Your task to perform on an android device: turn off improve location accuracy Image 0: 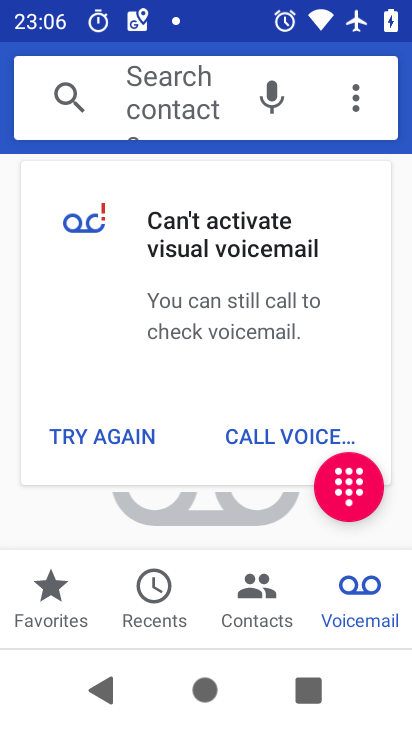
Step 0: press home button
Your task to perform on an android device: turn off improve location accuracy Image 1: 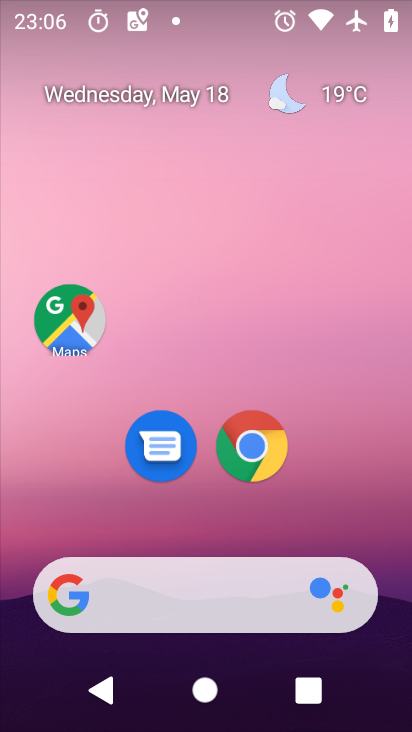
Step 1: drag from (209, 610) to (316, 9)
Your task to perform on an android device: turn off improve location accuracy Image 2: 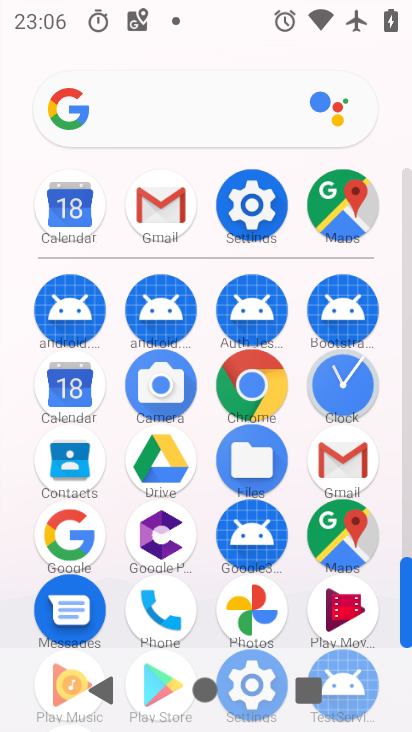
Step 2: click (241, 225)
Your task to perform on an android device: turn off improve location accuracy Image 3: 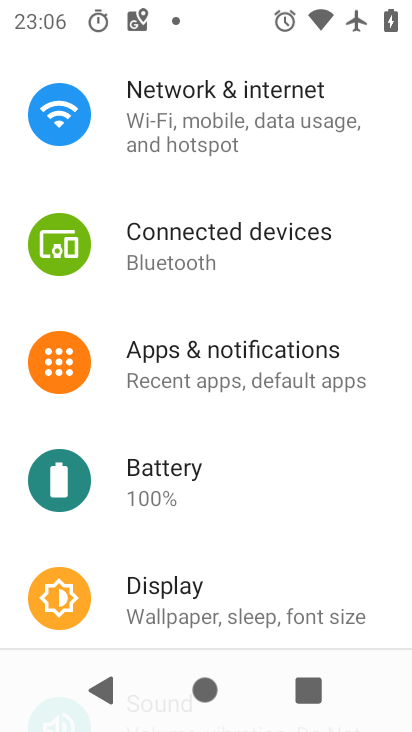
Step 3: drag from (290, 433) to (314, 16)
Your task to perform on an android device: turn off improve location accuracy Image 4: 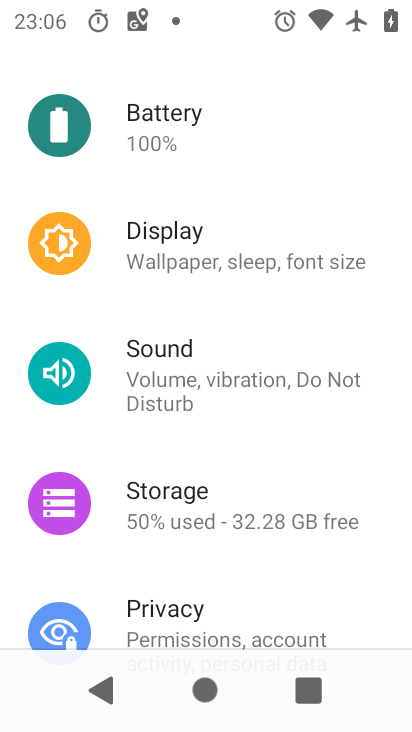
Step 4: drag from (209, 565) to (331, 79)
Your task to perform on an android device: turn off improve location accuracy Image 5: 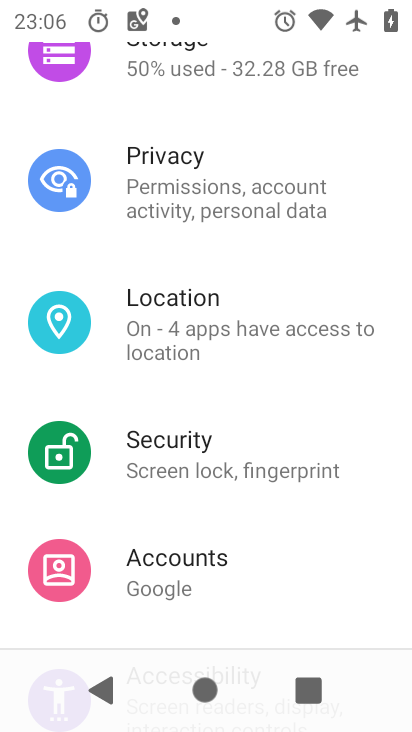
Step 5: click (187, 327)
Your task to perform on an android device: turn off improve location accuracy Image 6: 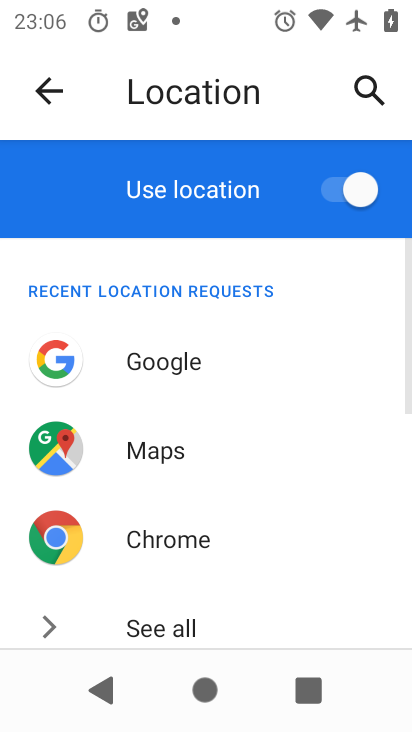
Step 6: drag from (241, 607) to (354, 174)
Your task to perform on an android device: turn off improve location accuracy Image 7: 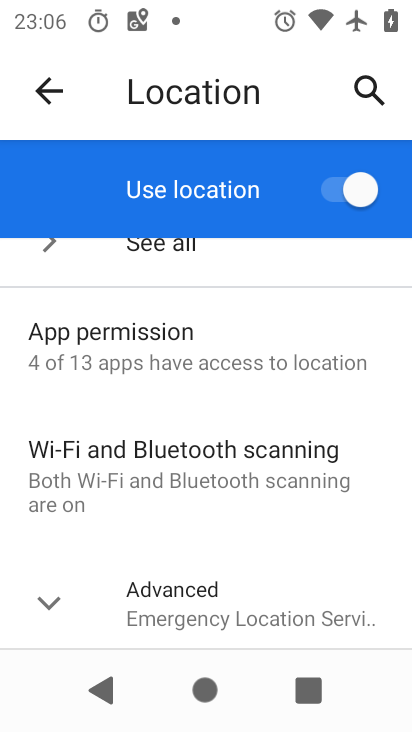
Step 7: click (163, 601)
Your task to perform on an android device: turn off improve location accuracy Image 8: 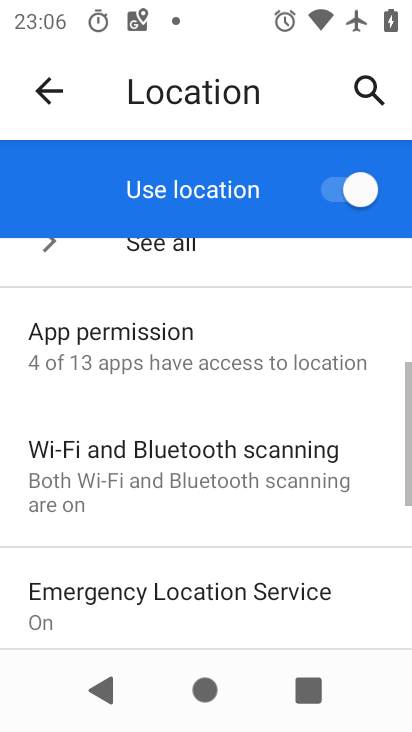
Step 8: drag from (176, 608) to (346, 176)
Your task to perform on an android device: turn off improve location accuracy Image 9: 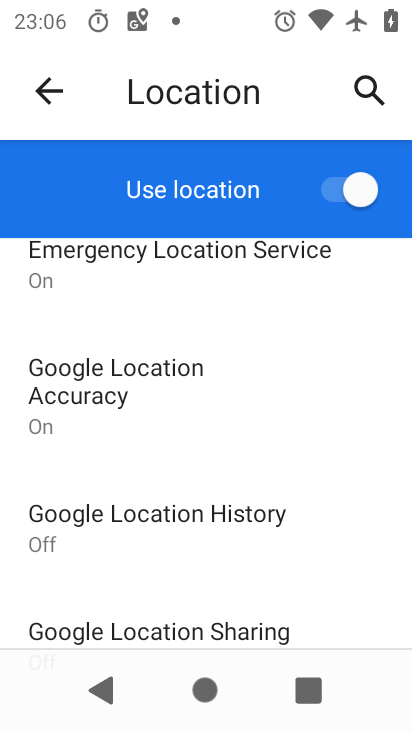
Step 9: click (144, 383)
Your task to perform on an android device: turn off improve location accuracy Image 10: 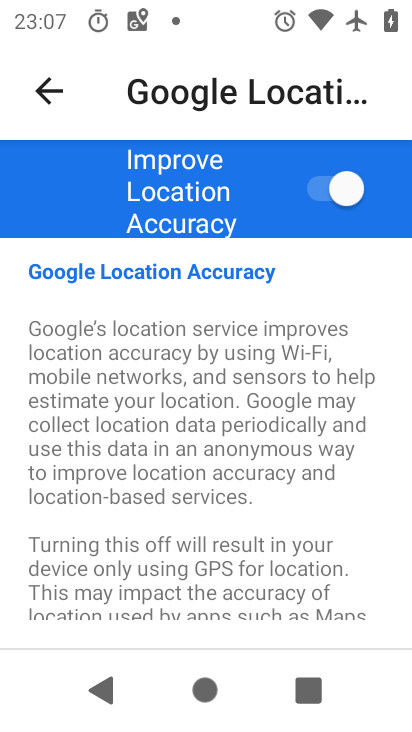
Step 10: click (328, 187)
Your task to perform on an android device: turn off improve location accuracy Image 11: 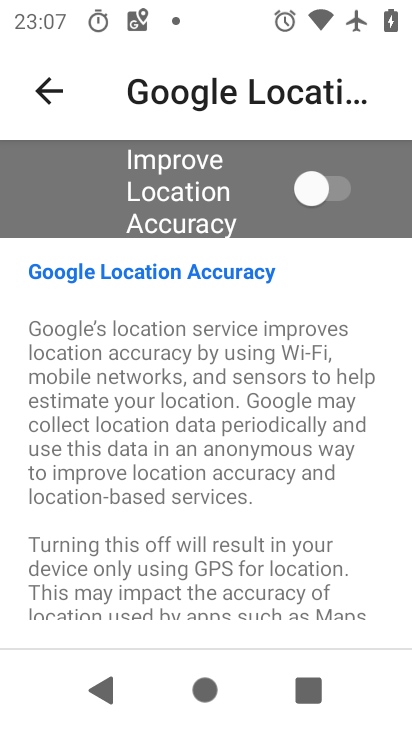
Step 11: task complete